Your task to perform on an android device: manage bookmarks in the chrome app Image 0: 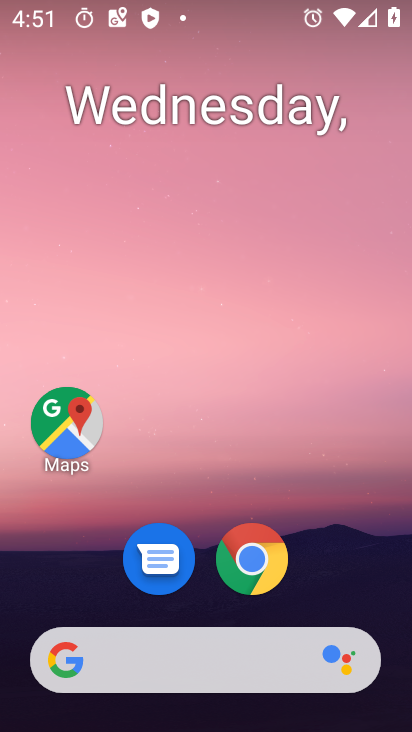
Step 0: drag from (393, 605) to (281, 63)
Your task to perform on an android device: manage bookmarks in the chrome app Image 1: 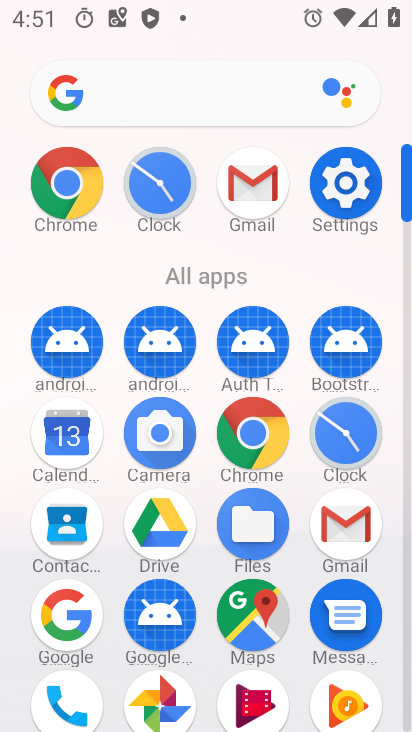
Step 1: click (61, 194)
Your task to perform on an android device: manage bookmarks in the chrome app Image 2: 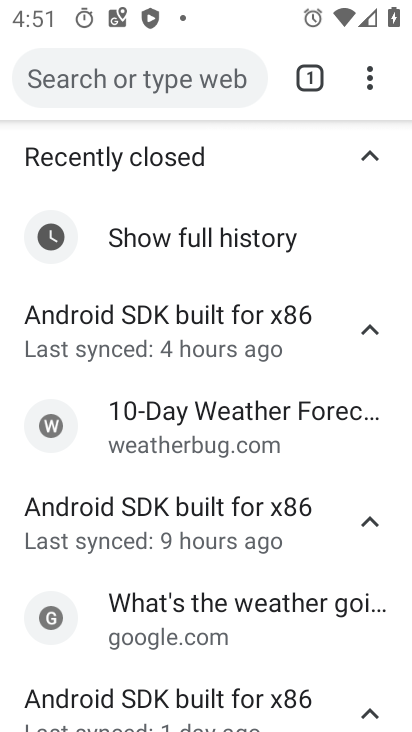
Step 2: click (371, 81)
Your task to perform on an android device: manage bookmarks in the chrome app Image 3: 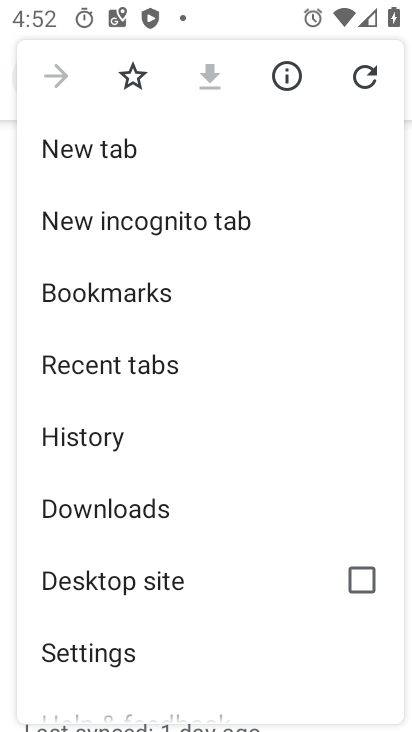
Step 3: click (246, 298)
Your task to perform on an android device: manage bookmarks in the chrome app Image 4: 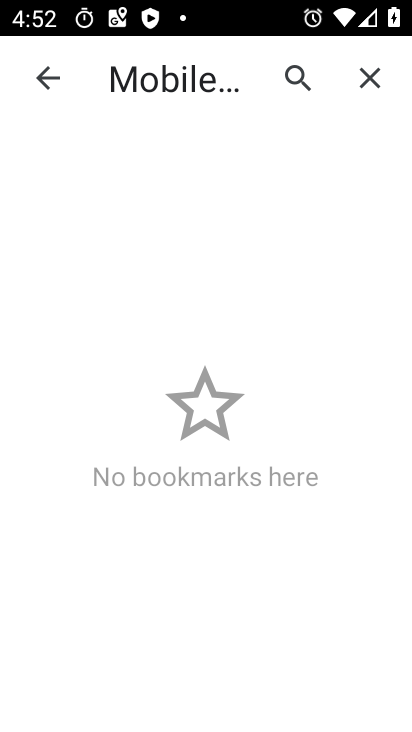
Step 4: task complete